Your task to perform on an android device: change your default location settings in chrome Image 0: 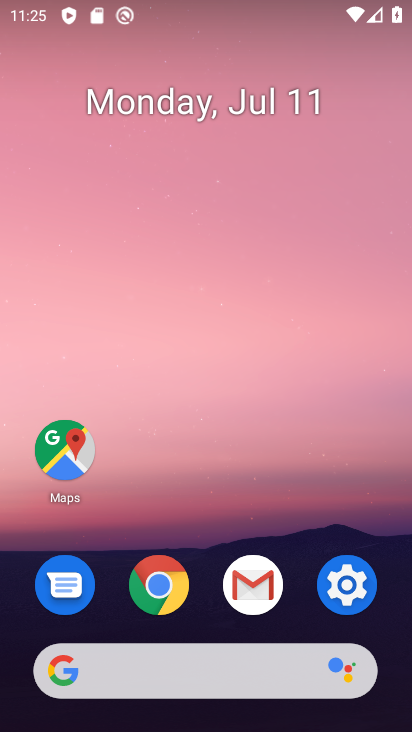
Step 0: click (173, 582)
Your task to perform on an android device: change your default location settings in chrome Image 1: 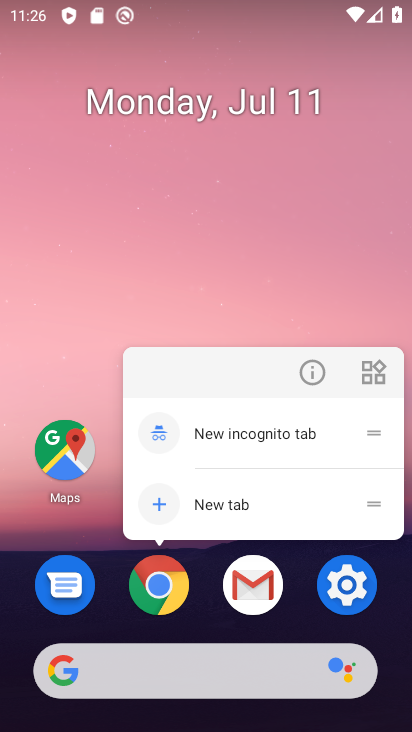
Step 1: click (164, 589)
Your task to perform on an android device: change your default location settings in chrome Image 2: 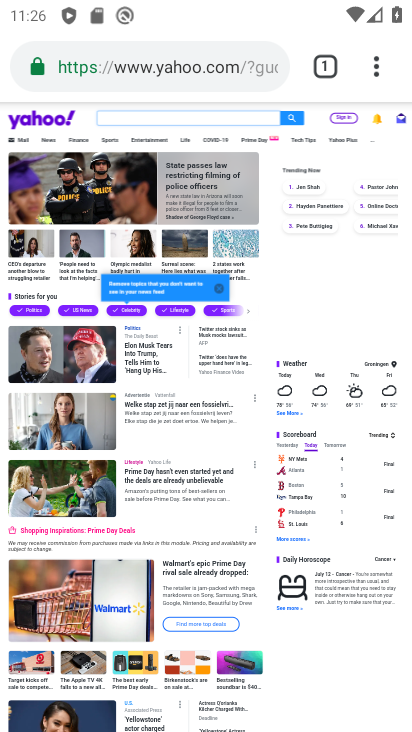
Step 2: click (372, 75)
Your task to perform on an android device: change your default location settings in chrome Image 3: 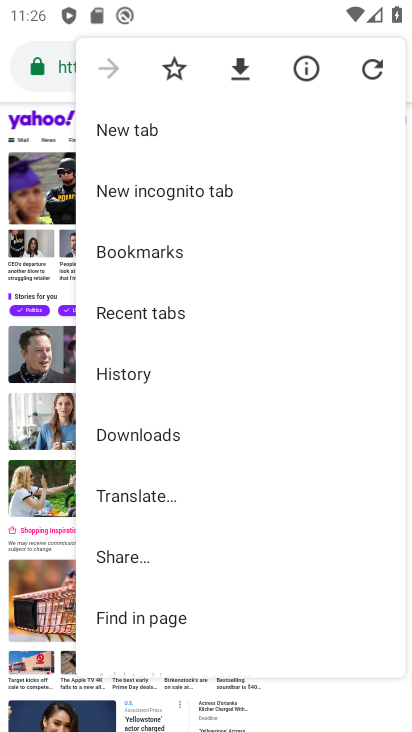
Step 3: drag from (154, 602) to (106, 377)
Your task to perform on an android device: change your default location settings in chrome Image 4: 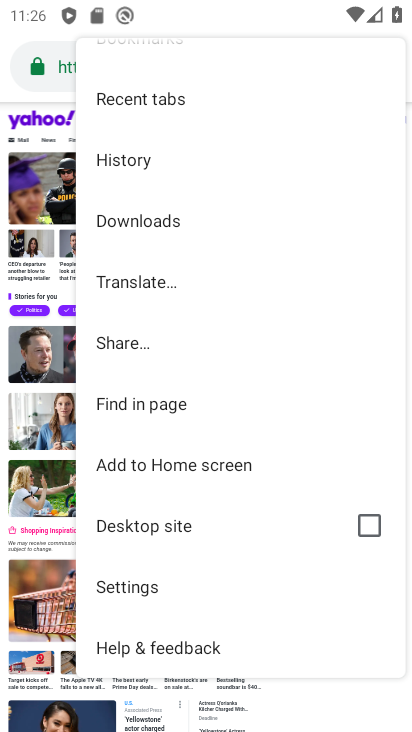
Step 4: click (129, 592)
Your task to perform on an android device: change your default location settings in chrome Image 5: 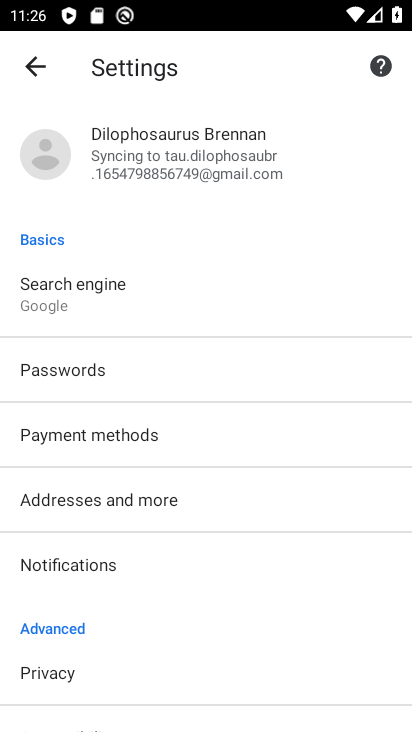
Step 5: click (191, 325)
Your task to perform on an android device: change your default location settings in chrome Image 6: 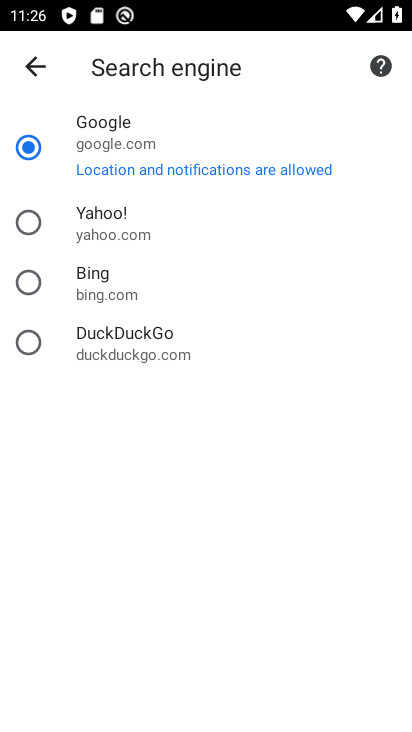
Step 6: click (30, 70)
Your task to perform on an android device: change your default location settings in chrome Image 7: 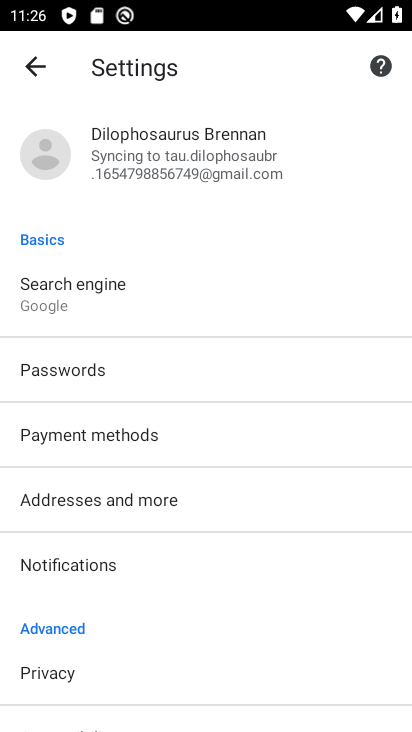
Step 7: drag from (133, 625) to (321, 211)
Your task to perform on an android device: change your default location settings in chrome Image 8: 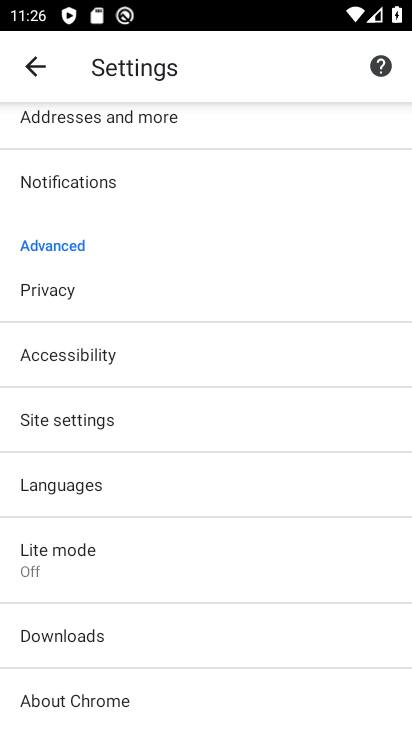
Step 8: click (54, 422)
Your task to perform on an android device: change your default location settings in chrome Image 9: 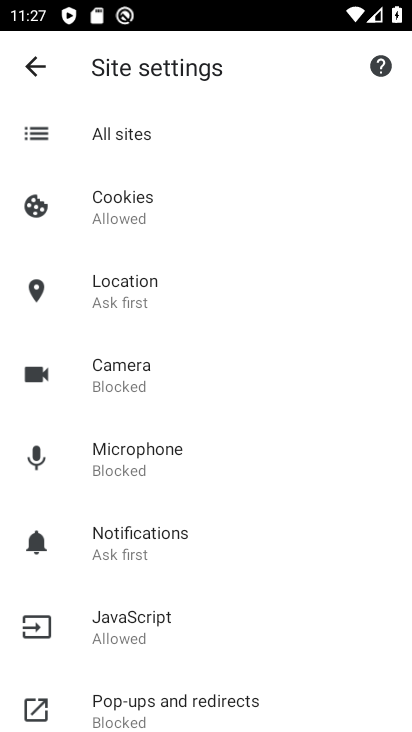
Step 9: click (93, 302)
Your task to perform on an android device: change your default location settings in chrome Image 10: 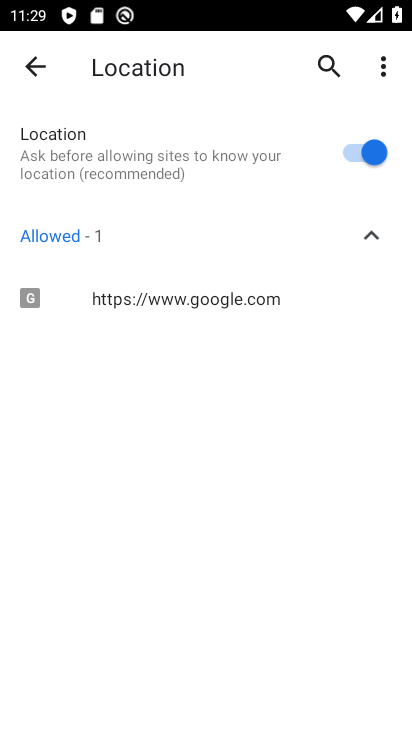
Step 10: task complete